Your task to perform on an android device: What is the recent news? Image 0: 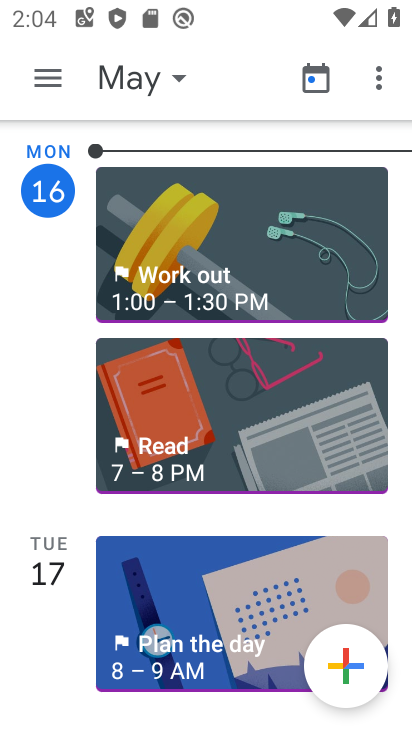
Step 0: press home button
Your task to perform on an android device: What is the recent news? Image 1: 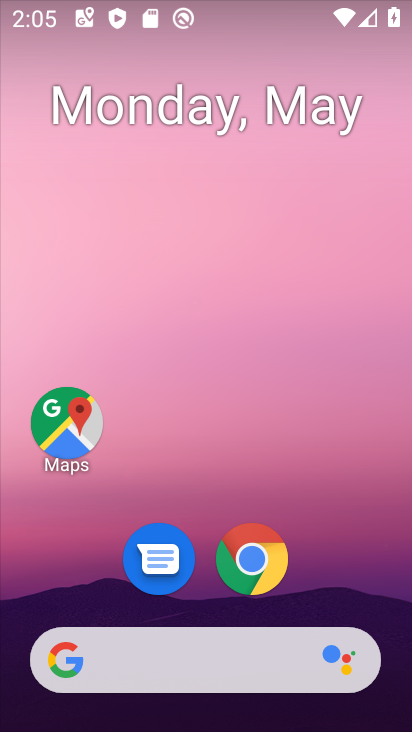
Step 1: click (308, 658)
Your task to perform on an android device: What is the recent news? Image 2: 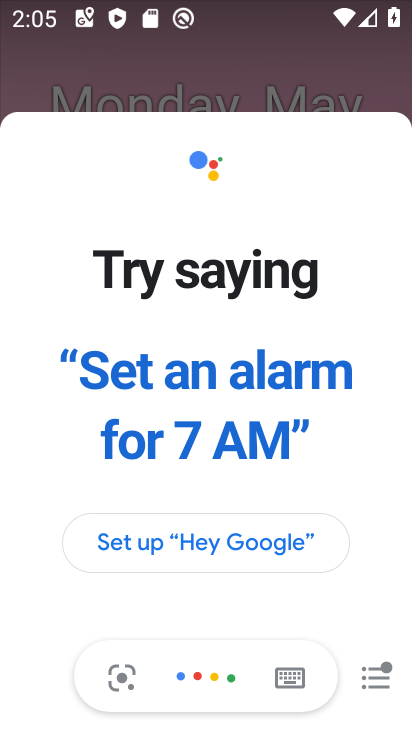
Step 2: type "re"
Your task to perform on an android device: What is the recent news? Image 3: 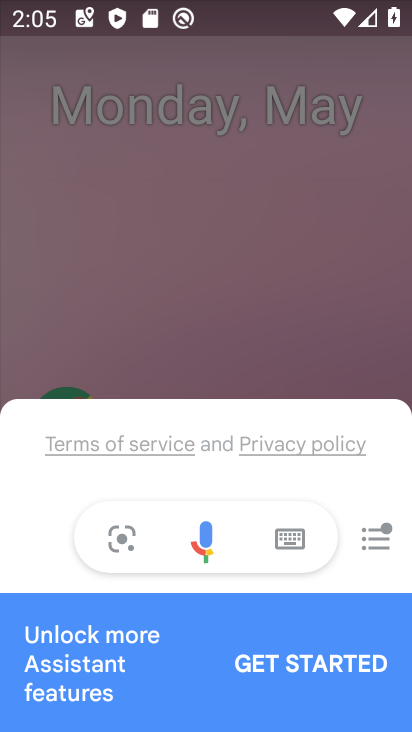
Step 3: press home button
Your task to perform on an android device: What is the recent news? Image 4: 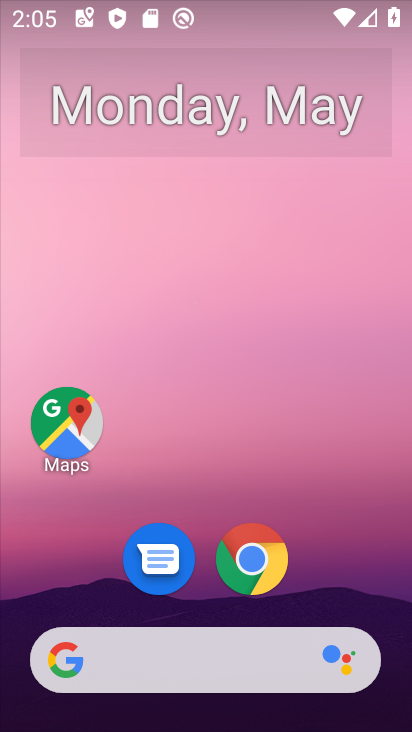
Step 4: press home button
Your task to perform on an android device: What is the recent news? Image 5: 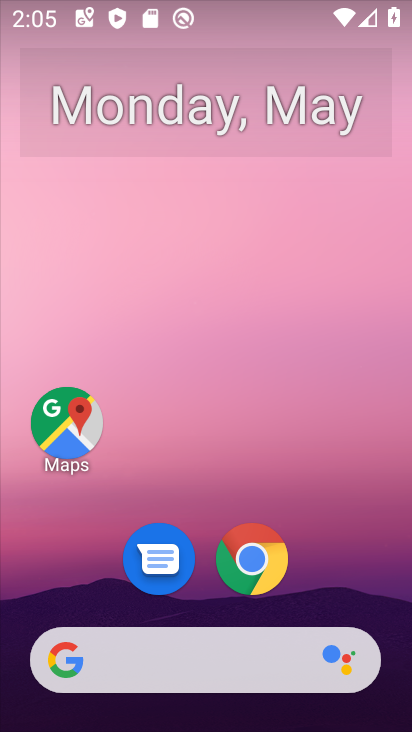
Step 5: type "What is the recent news?"
Your task to perform on an android device: What is the recent news? Image 6: 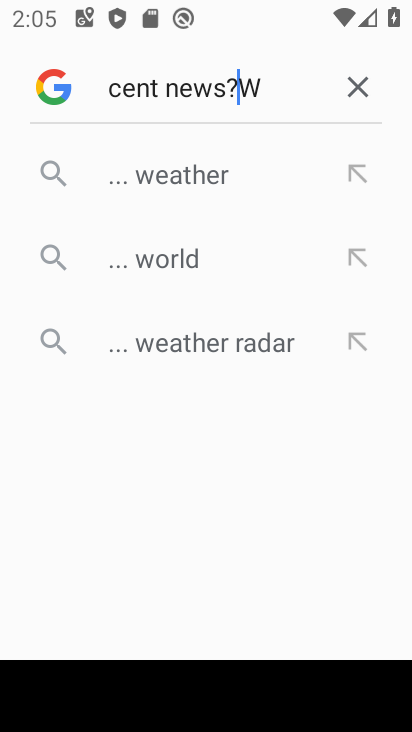
Step 6: click (358, 88)
Your task to perform on an android device: What is the recent news? Image 7: 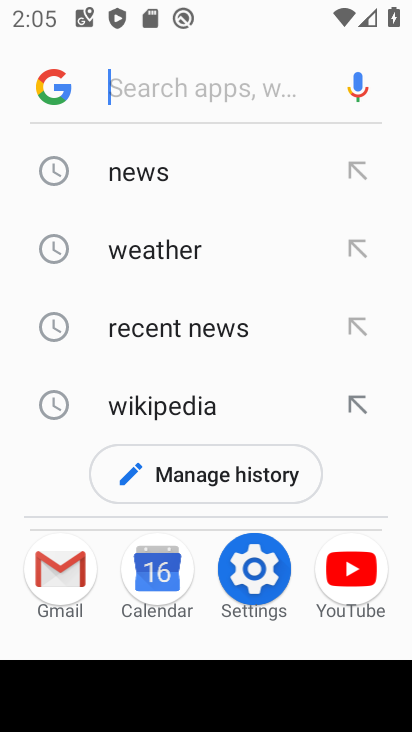
Step 7: click (75, 329)
Your task to perform on an android device: What is the recent news? Image 8: 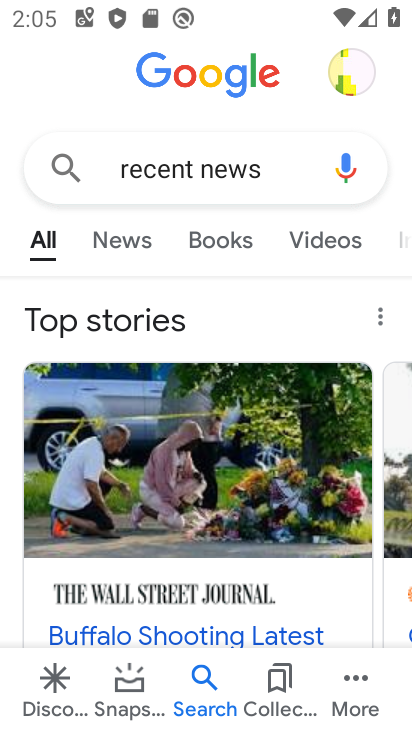
Step 8: task complete